Your task to perform on an android device: Search for the best deal on a 3d printer on aliexpress Image 0: 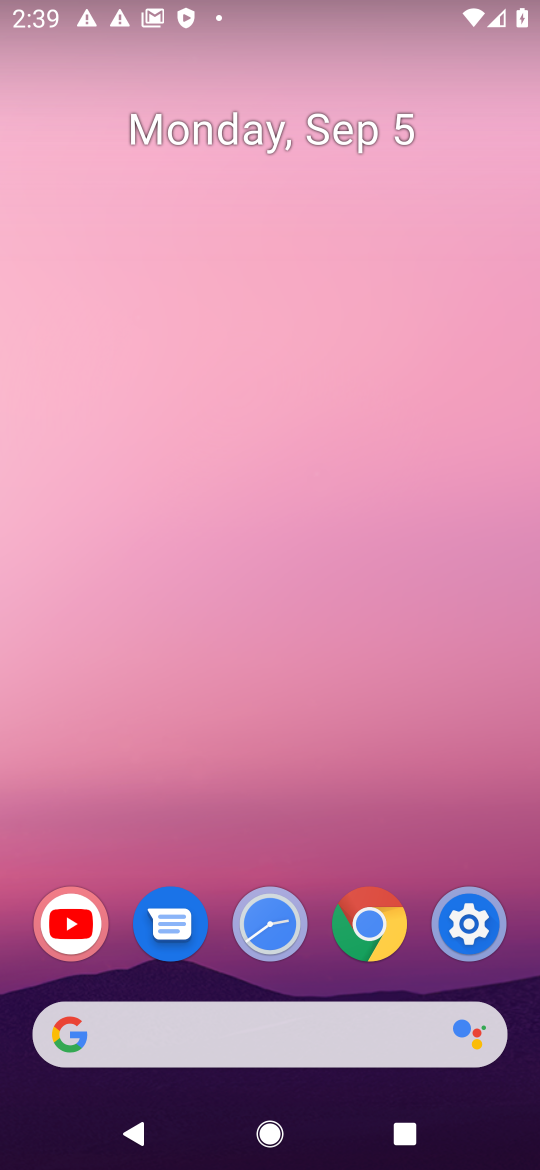
Step 0: drag from (312, 985) to (529, 125)
Your task to perform on an android device: Search for the best deal on a 3d printer on aliexpress Image 1: 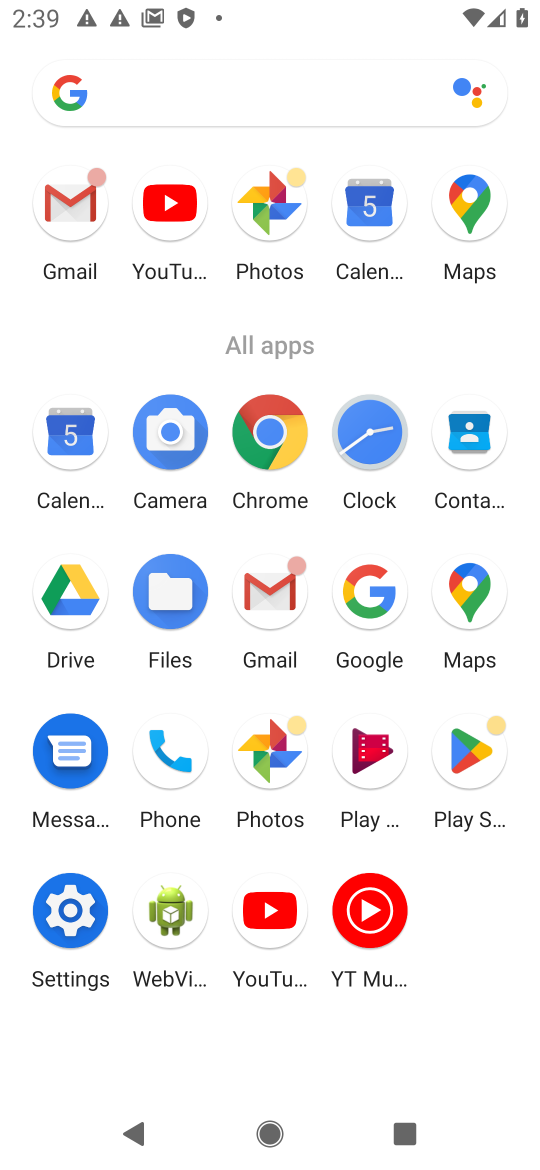
Step 1: click (375, 613)
Your task to perform on an android device: Search for the best deal on a 3d printer on aliexpress Image 2: 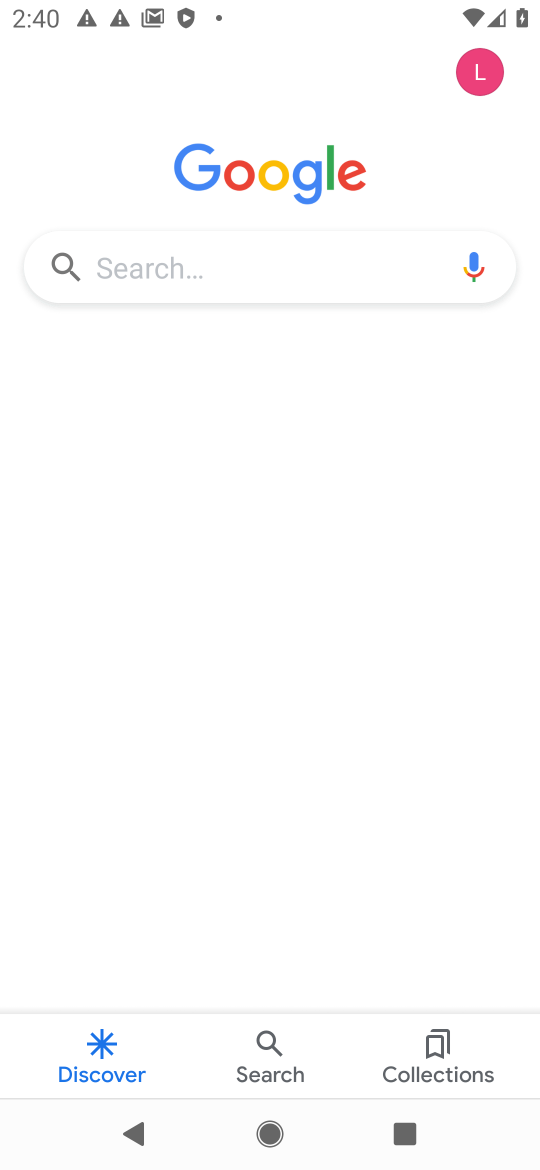
Step 2: click (301, 271)
Your task to perform on an android device: Search for the best deal on a 3d printer on aliexpress Image 3: 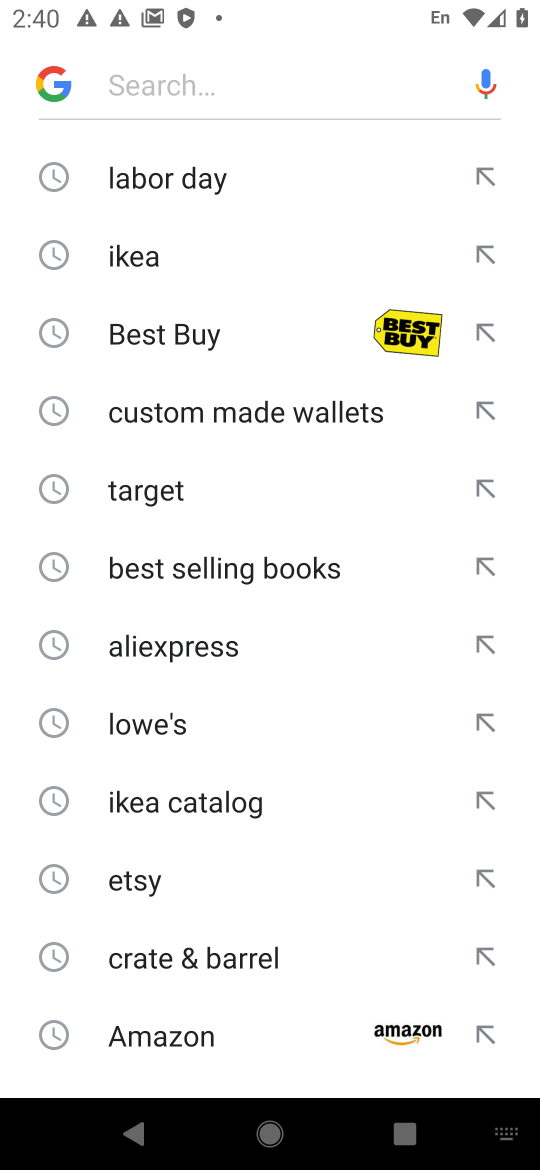
Step 3: type "aliexpress"
Your task to perform on an android device: Search for the best deal on a 3d printer on aliexpress Image 4: 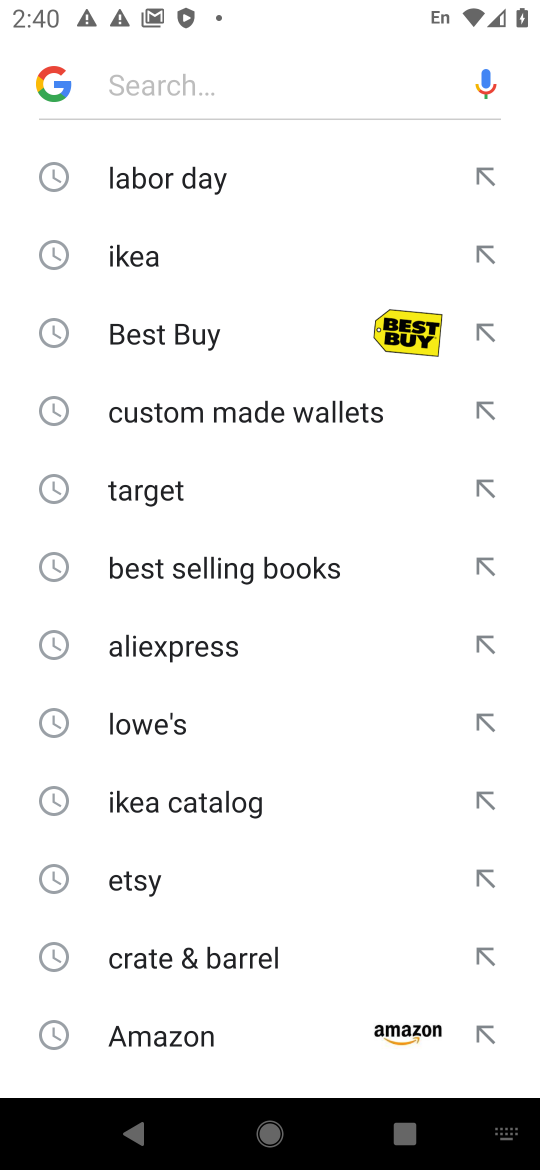
Step 4: click (151, 94)
Your task to perform on an android device: Search for the best deal on a 3d printer on aliexpress Image 5: 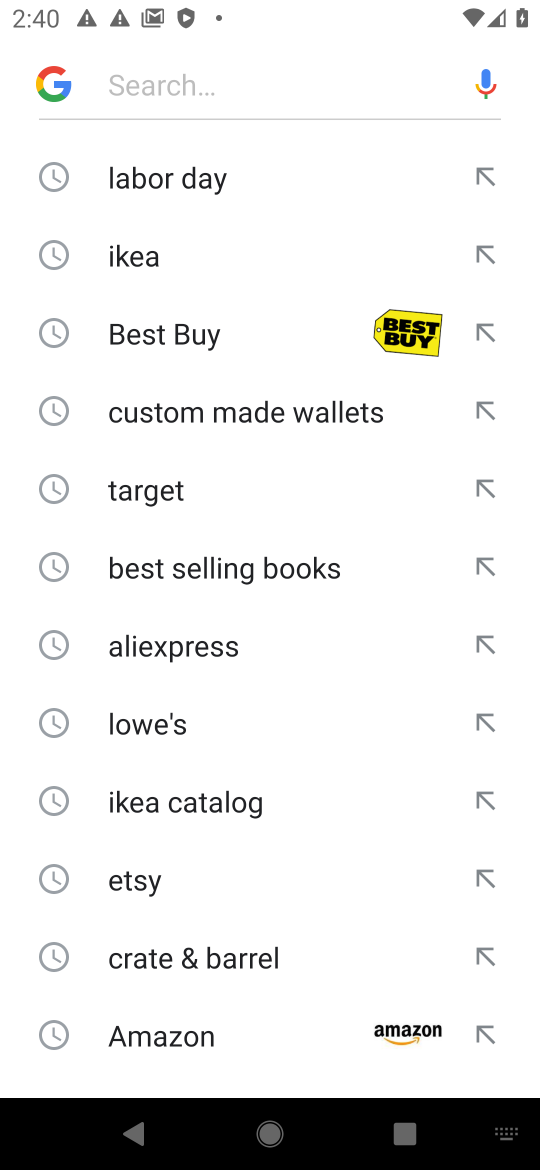
Step 5: click (208, 119)
Your task to perform on an android device: Search for the best deal on a 3d printer on aliexpress Image 6: 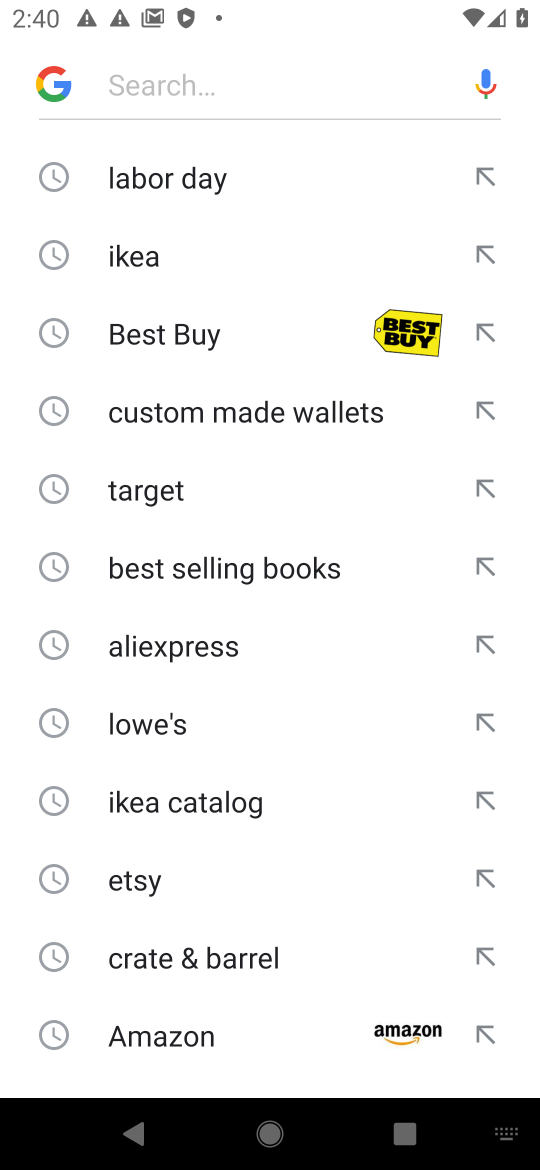
Step 6: type "aliexpress"
Your task to perform on an android device: Search for the best deal on a 3d printer on aliexpress Image 7: 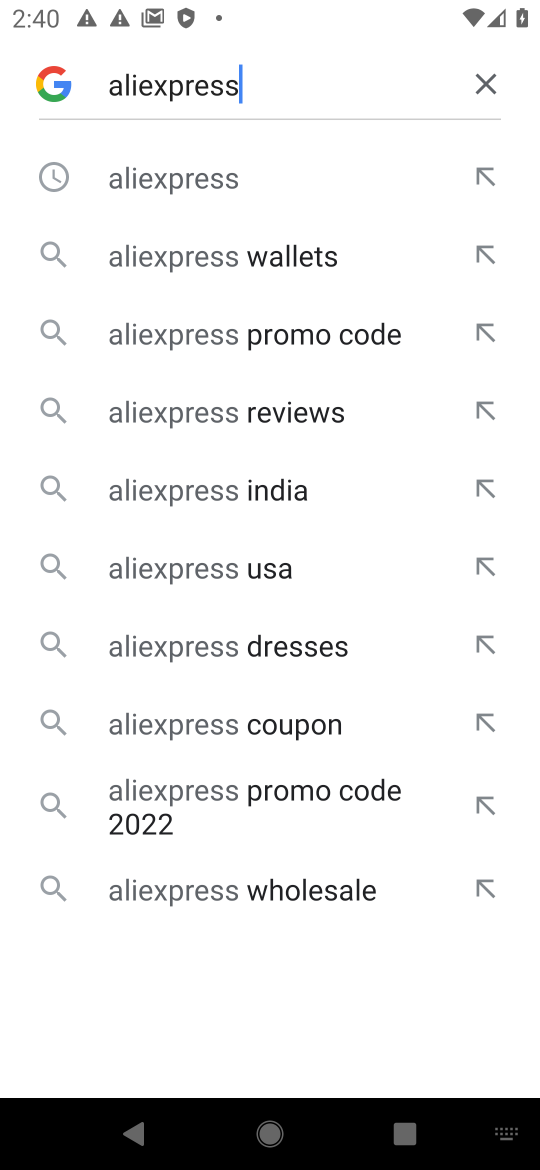
Step 7: type ""
Your task to perform on an android device: Search for the best deal on a 3d printer on aliexpress Image 8: 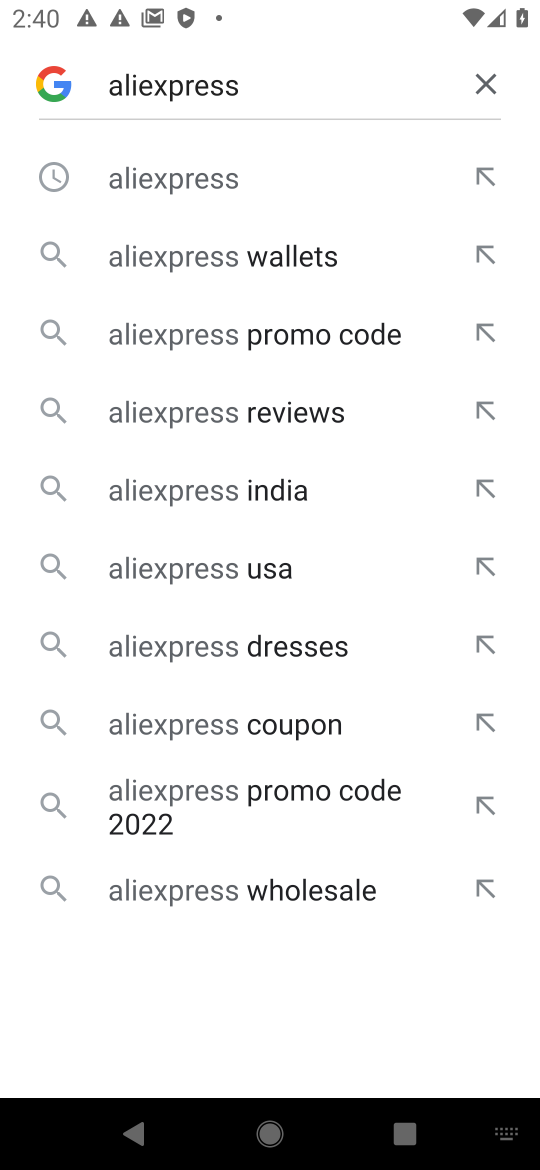
Step 8: click (185, 179)
Your task to perform on an android device: Search for the best deal on a 3d printer on aliexpress Image 9: 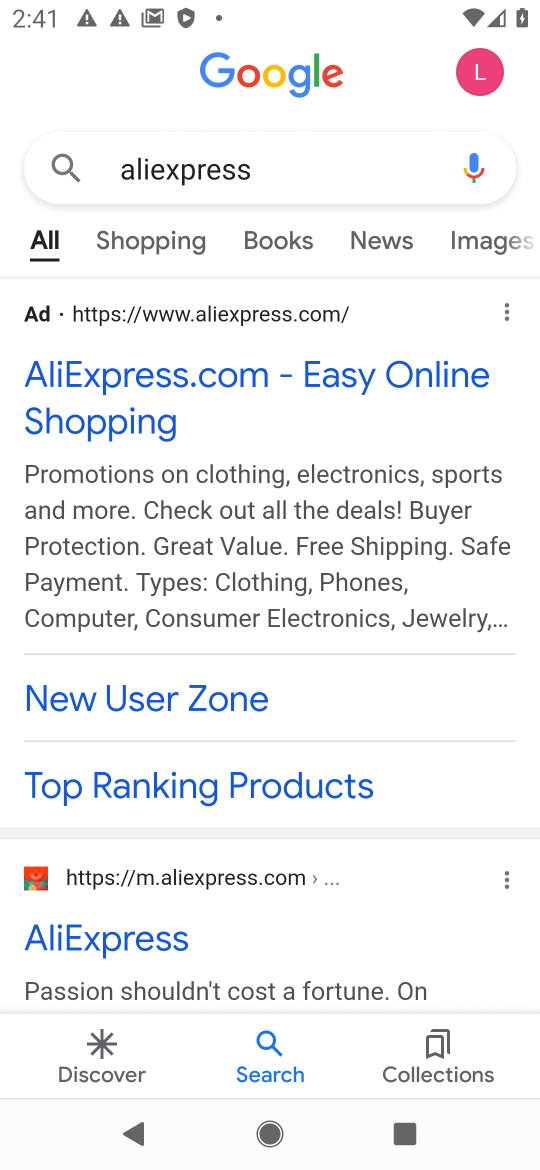
Step 9: click (202, 404)
Your task to perform on an android device: Search for the best deal on a 3d printer on aliexpress Image 10: 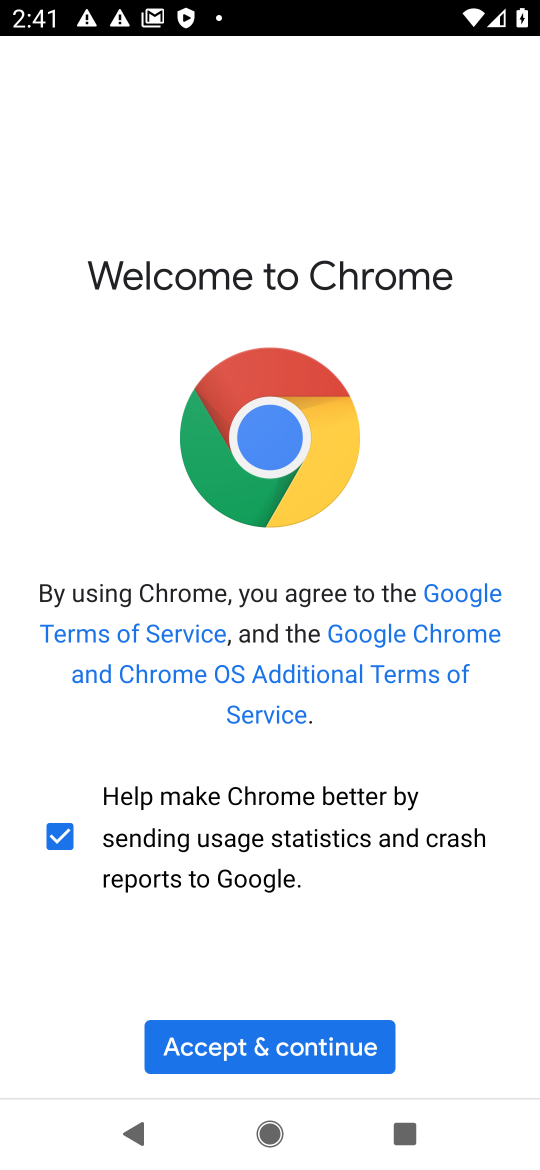
Step 10: click (252, 1049)
Your task to perform on an android device: Search for the best deal on a 3d printer on aliexpress Image 11: 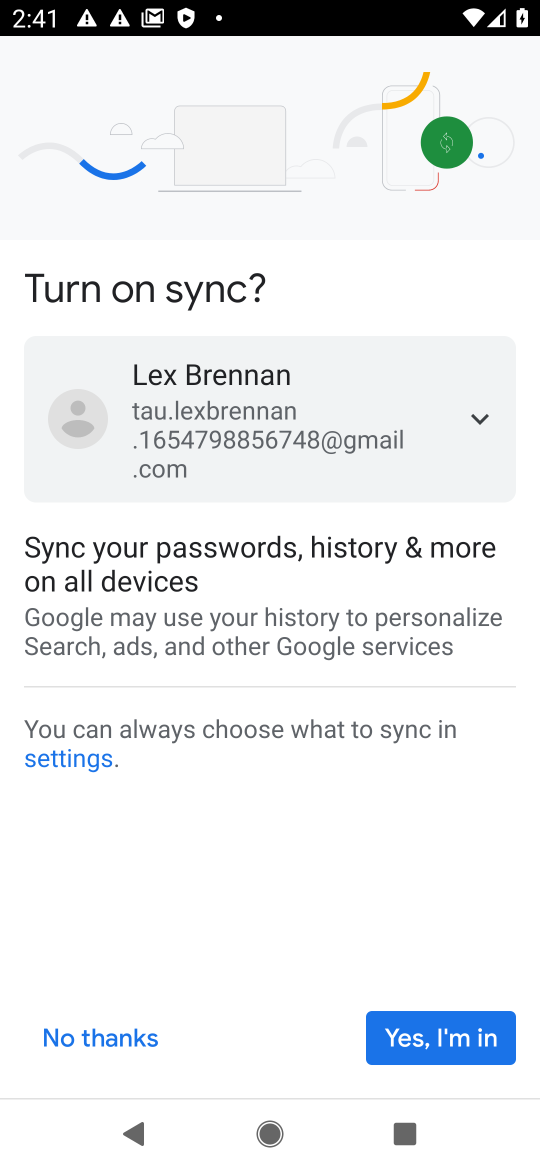
Step 11: click (404, 1052)
Your task to perform on an android device: Search for the best deal on a 3d printer on aliexpress Image 12: 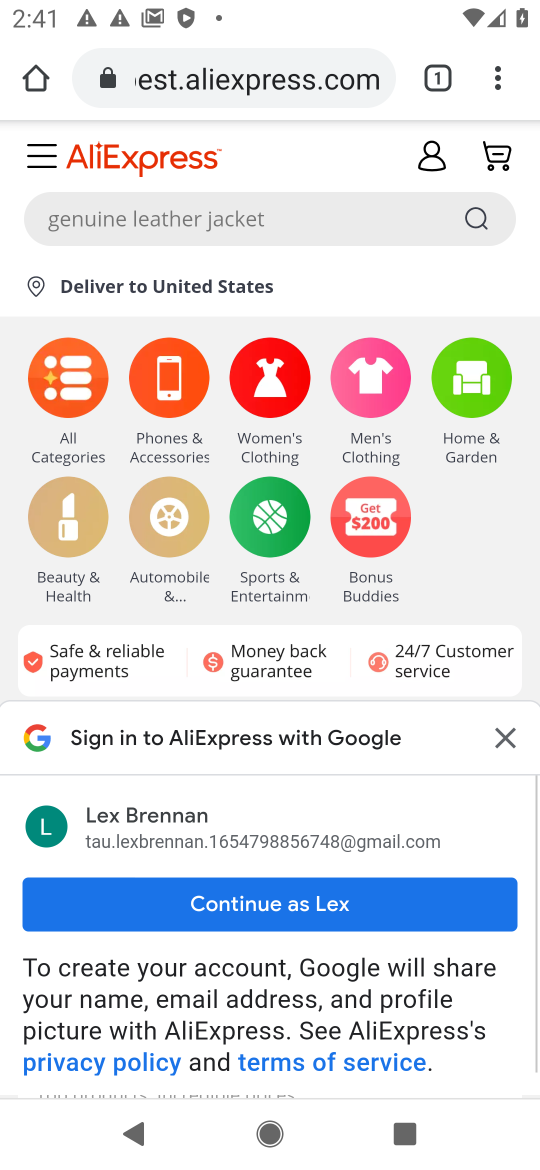
Step 12: click (89, 228)
Your task to perform on an android device: Search for the best deal on a 3d printer on aliexpress Image 13: 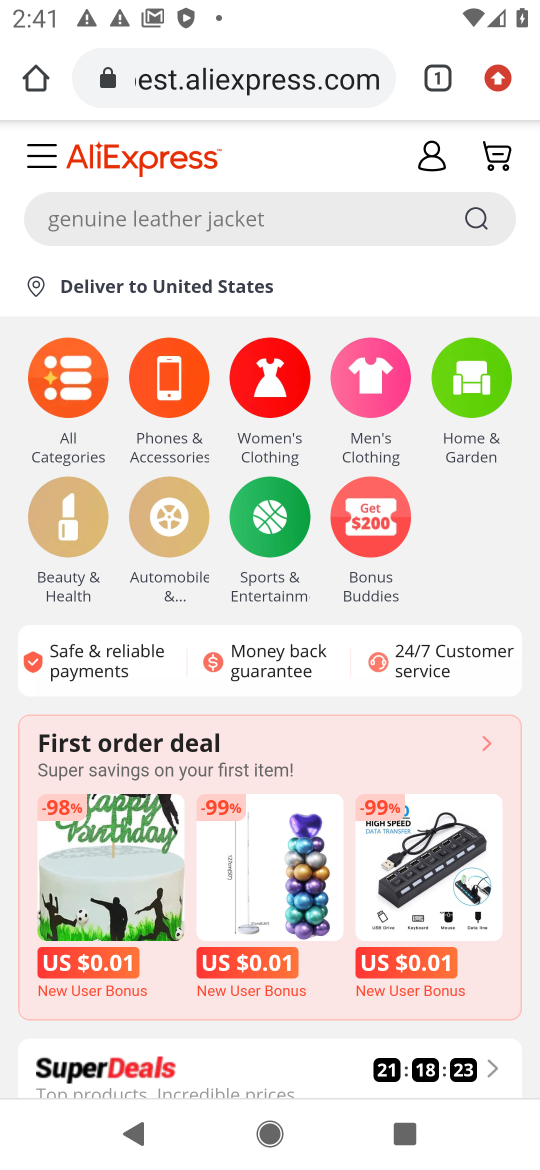
Step 13: click (81, 226)
Your task to perform on an android device: Search for the best deal on a 3d printer on aliexpress Image 14: 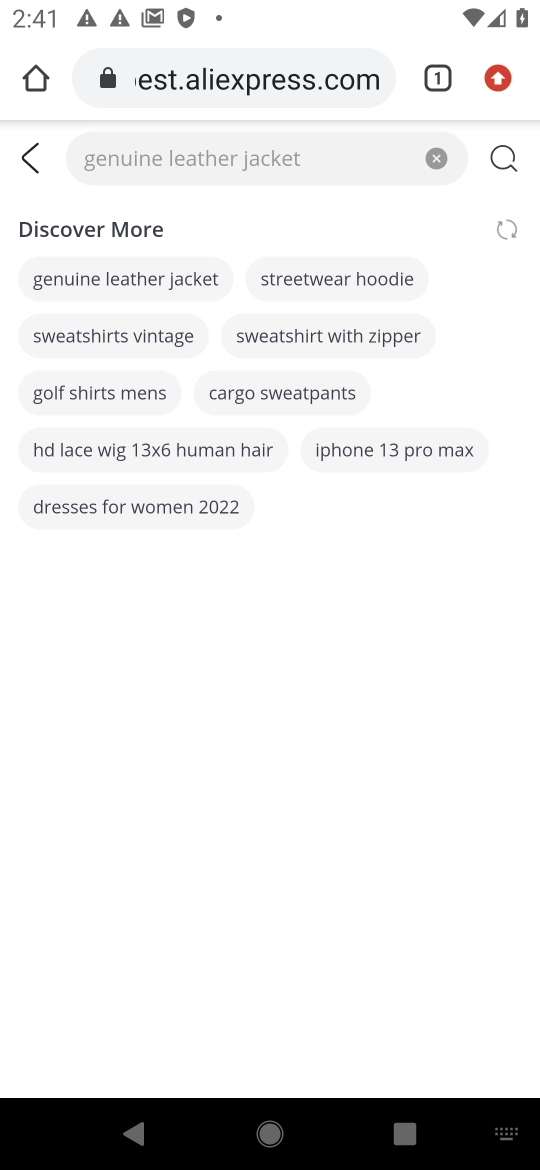
Step 14: type "the best deal on a 3d printer"
Your task to perform on an android device: Search for the best deal on a 3d printer on aliexpress Image 15: 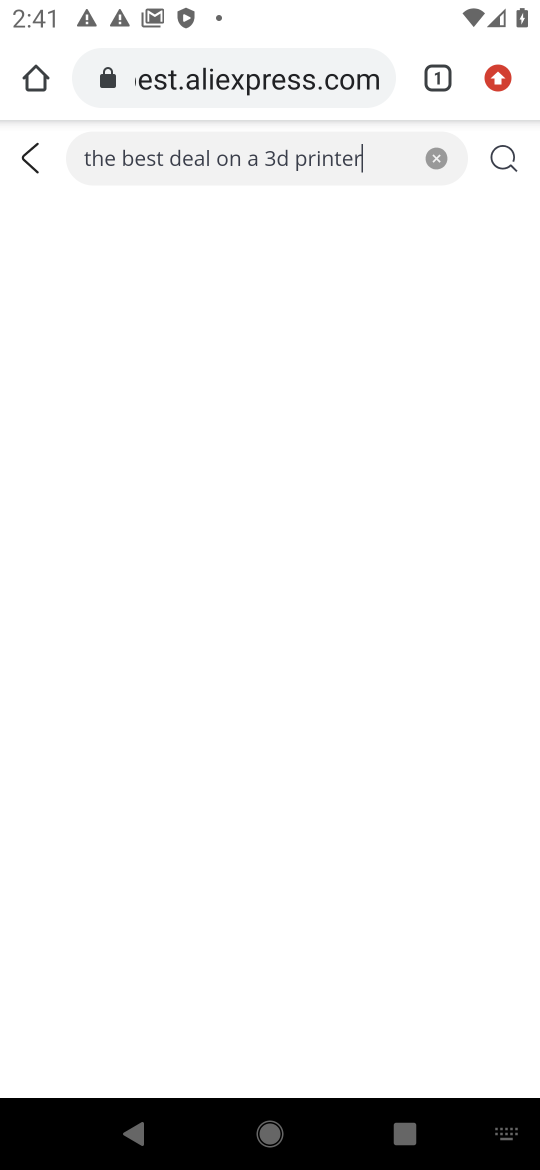
Step 15: type ""
Your task to perform on an android device: Search for the best deal on a 3d printer on aliexpress Image 16: 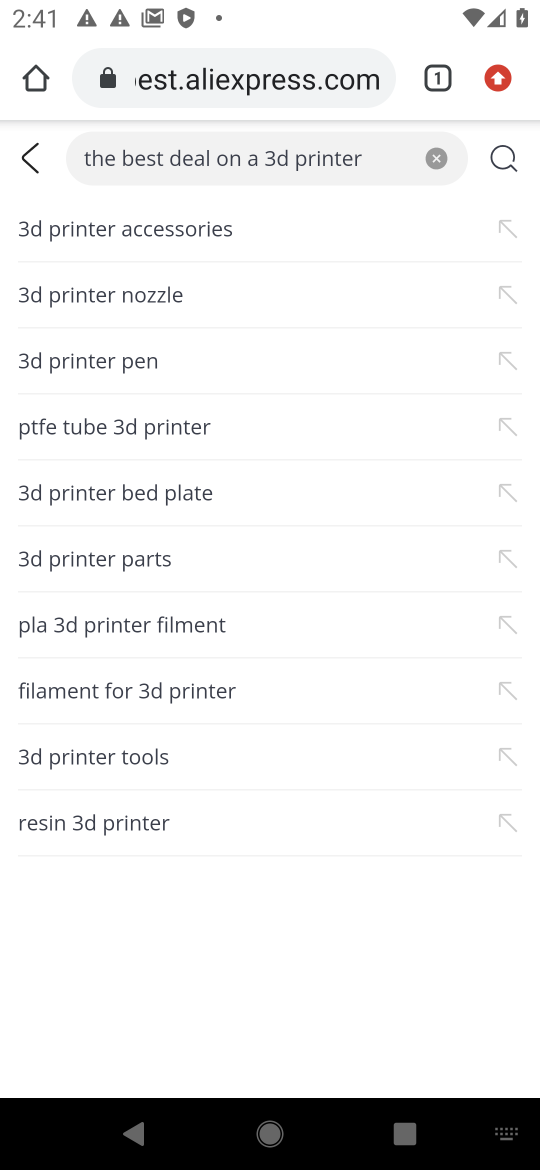
Step 16: click (68, 232)
Your task to perform on an android device: Search for the best deal on a 3d printer on aliexpress Image 17: 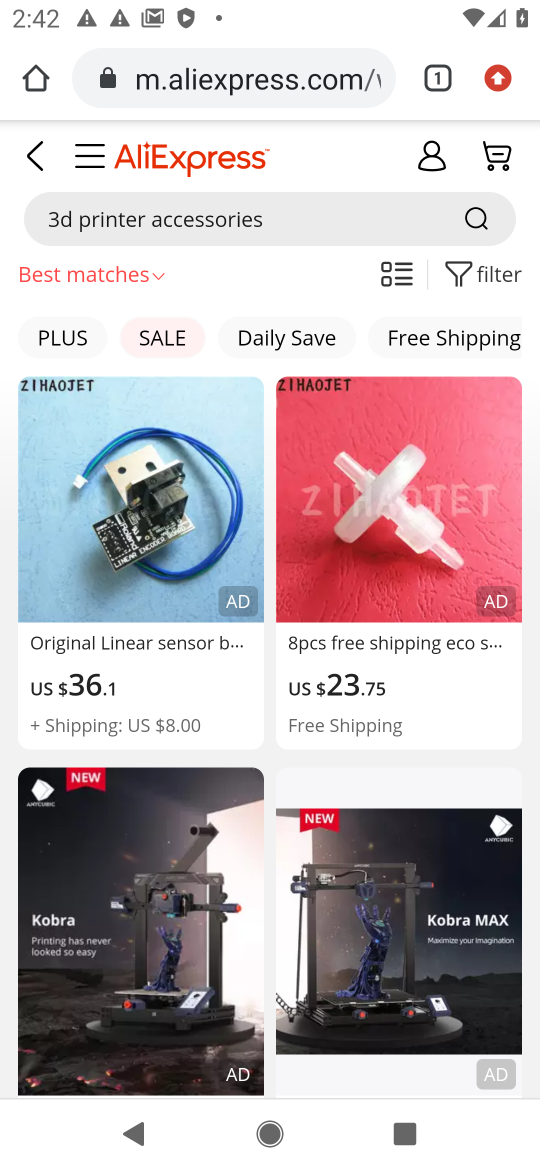
Step 17: task complete